Your task to perform on an android device: Show the shopping cart on amazon. Add macbook to the cart on amazon, then select checkout. Image 0: 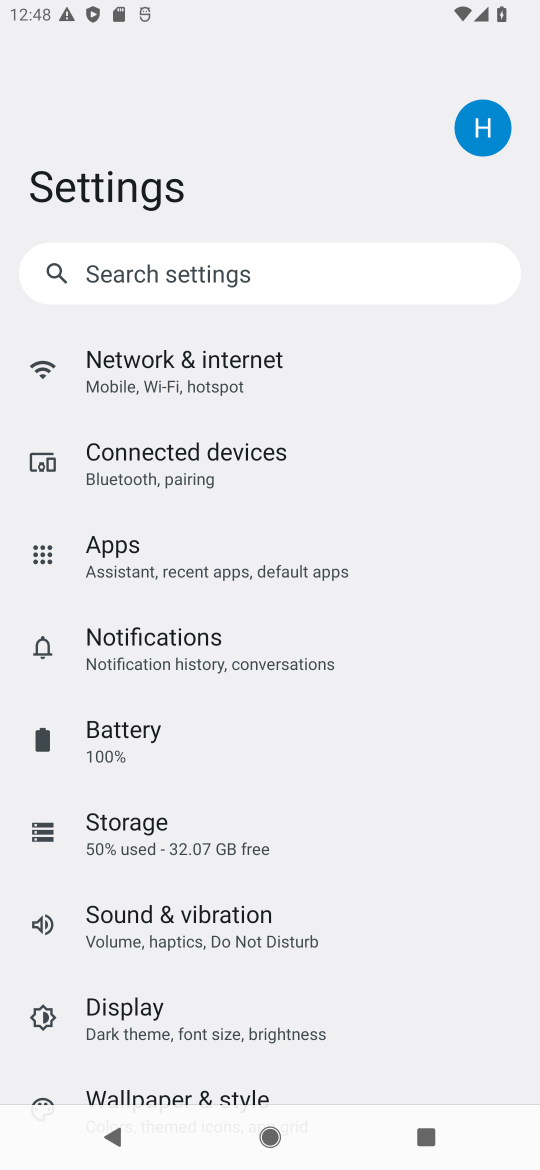
Step 0: press home button
Your task to perform on an android device: Show the shopping cart on amazon. Add macbook to the cart on amazon, then select checkout. Image 1: 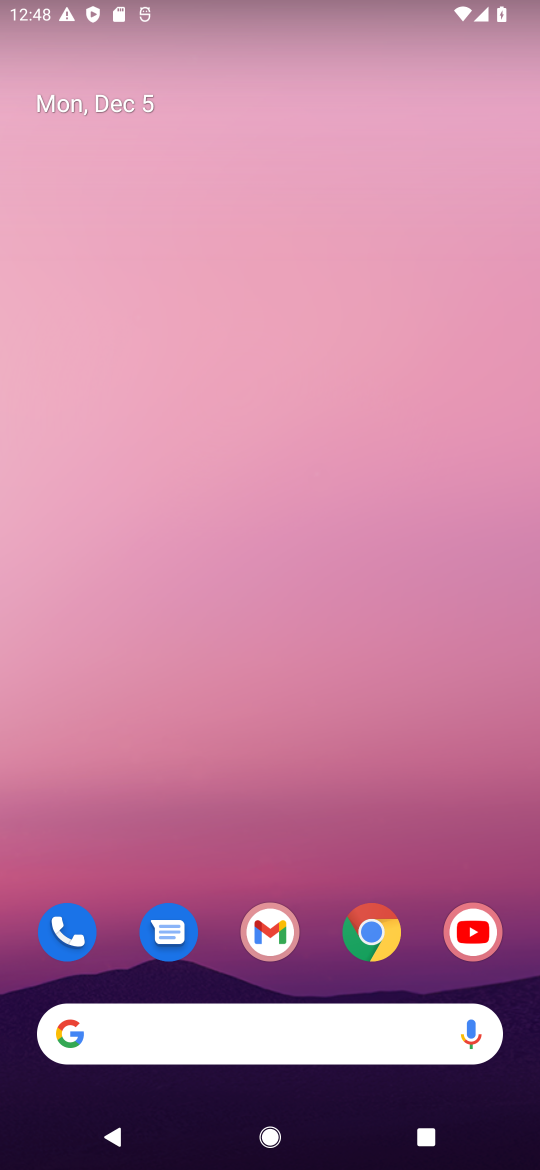
Step 1: click (368, 929)
Your task to perform on an android device: Show the shopping cart on amazon. Add macbook to the cart on amazon, then select checkout. Image 2: 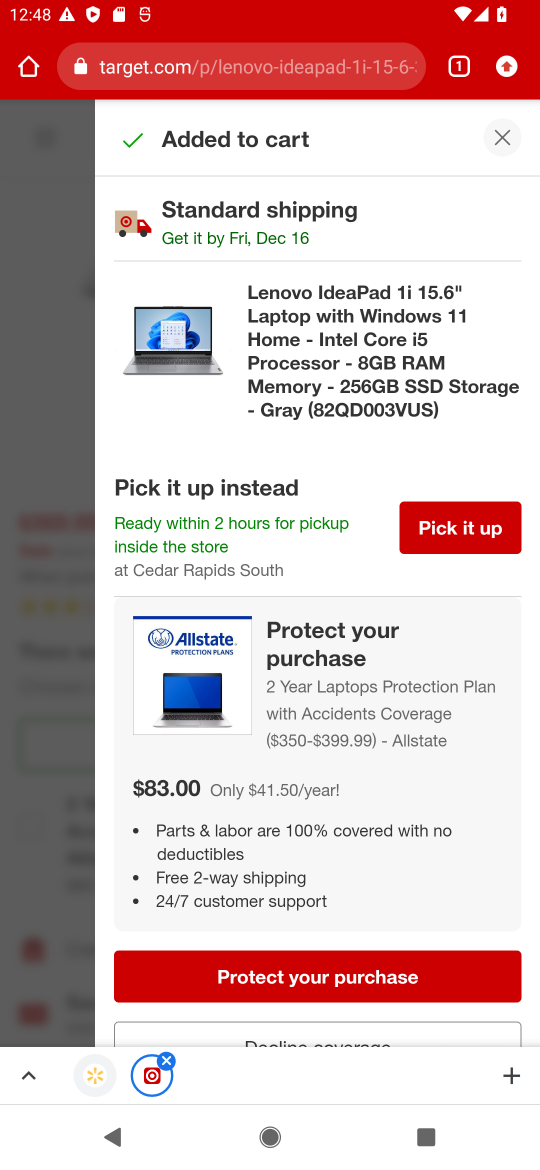
Step 2: click (230, 63)
Your task to perform on an android device: Show the shopping cart on amazon. Add macbook to the cart on amazon, then select checkout. Image 3: 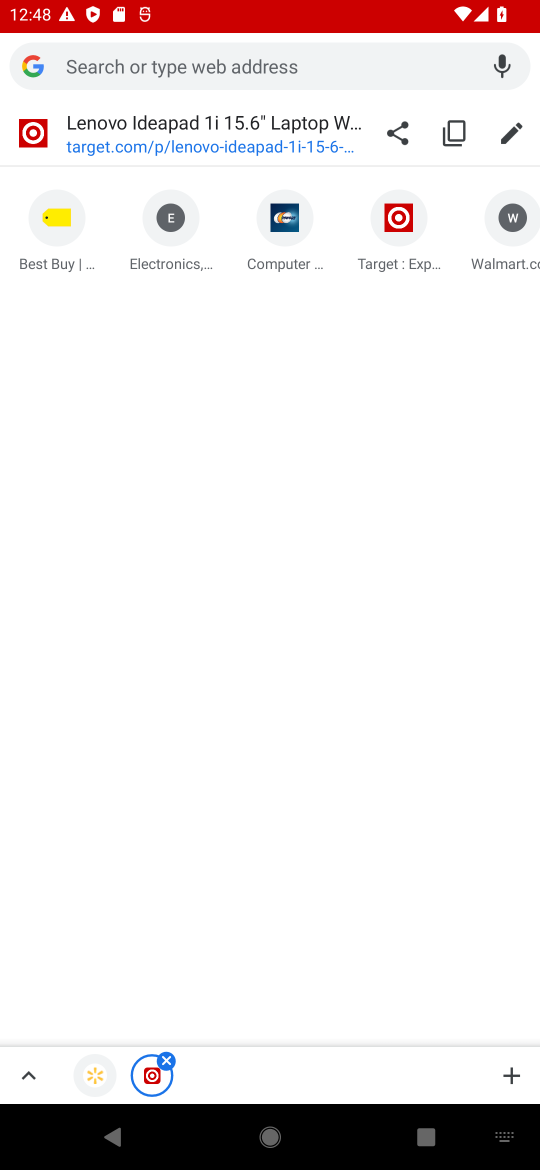
Step 3: type "amazon"
Your task to perform on an android device: Show the shopping cart on amazon. Add macbook to the cart on amazon, then select checkout. Image 4: 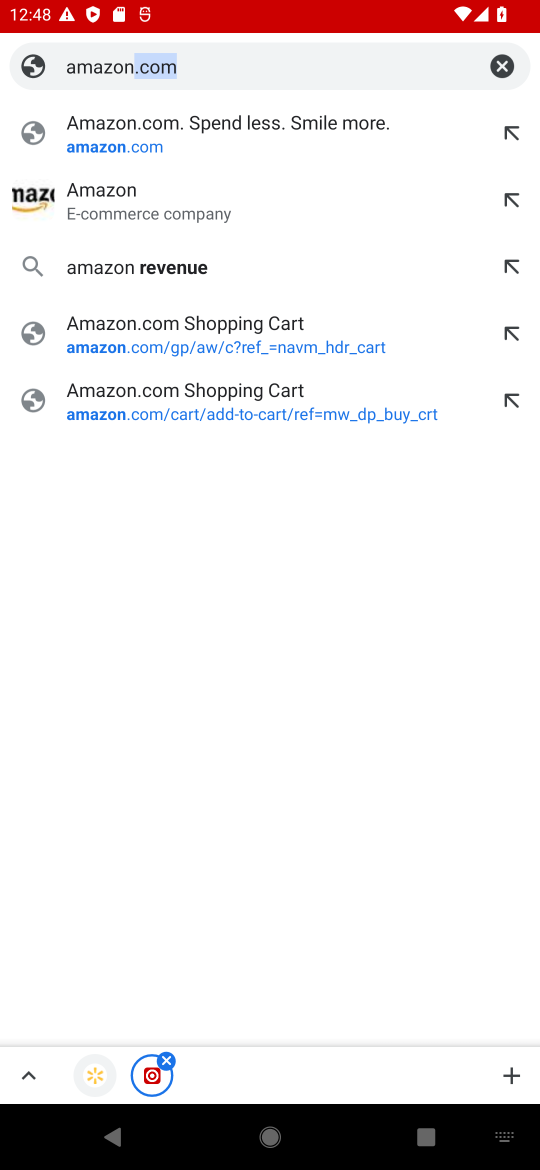
Step 4: click (110, 144)
Your task to perform on an android device: Show the shopping cart on amazon. Add macbook to the cart on amazon, then select checkout. Image 5: 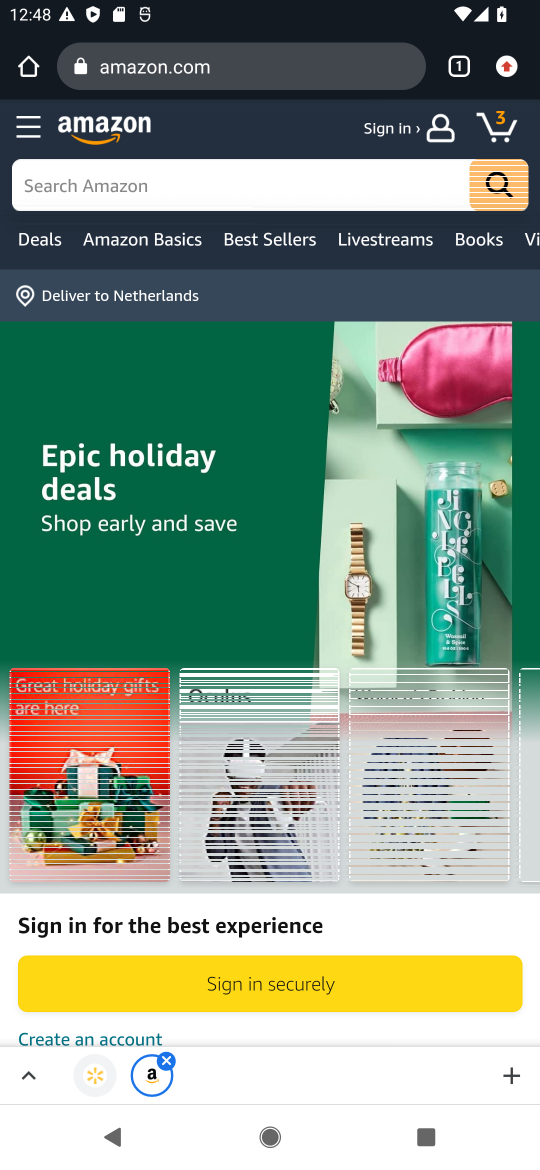
Step 5: click (238, 183)
Your task to perform on an android device: Show the shopping cart on amazon. Add macbook to the cart on amazon, then select checkout. Image 6: 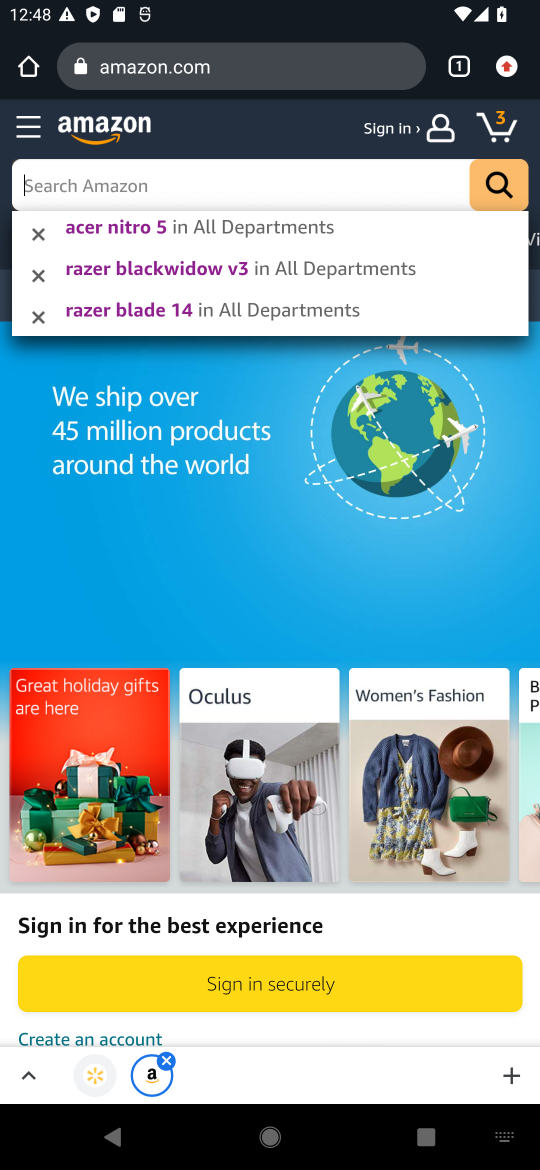
Step 6: type "macbook"
Your task to perform on an android device: Show the shopping cart on amazon. Add macbook to the cart on amazon, then select checkout. Image 7: 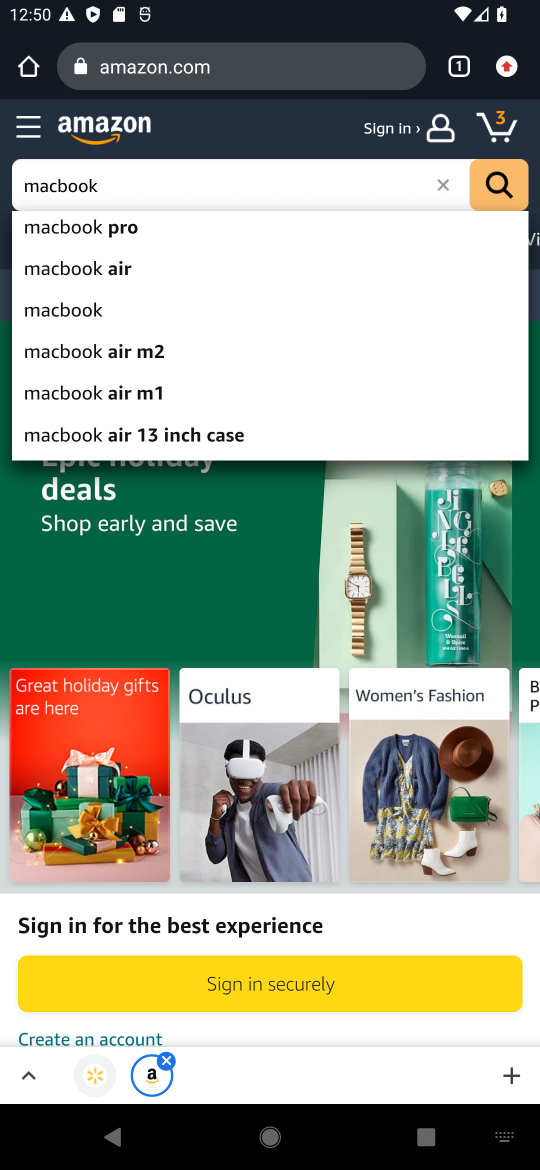
Step 7: click (93, 232)
Your task to perform on an android device: Show the shopping cart on amazon. Add macbook to the cart on amazon, then select checkout. Image 8: 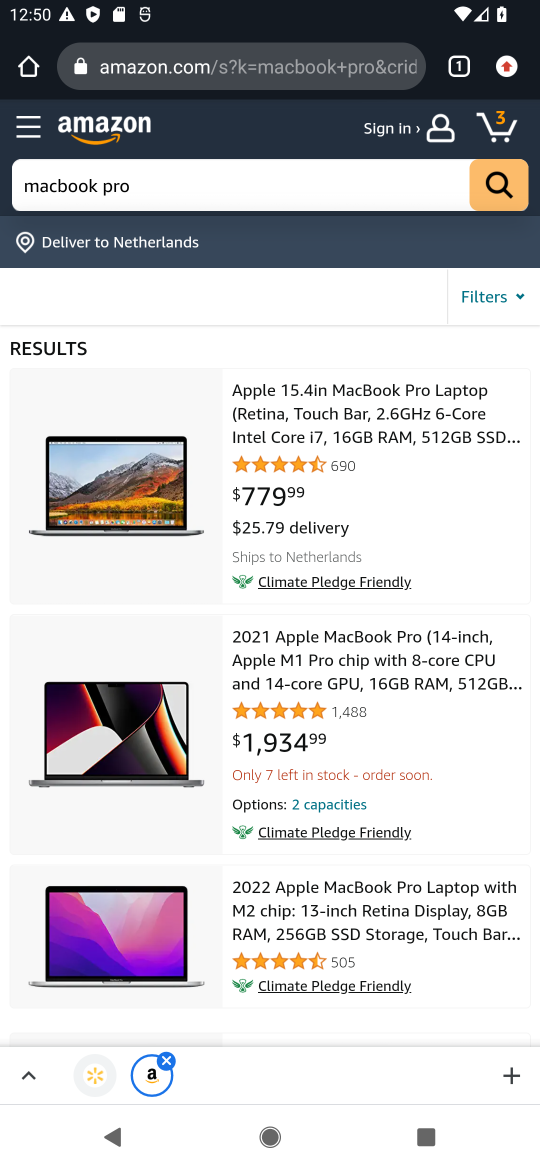
Step 8: click (101, 444)
Your task to perform on an android device: Show the shopping cart on amazon. Add macbook to the cart on amazon, then select checkout. Image 9: 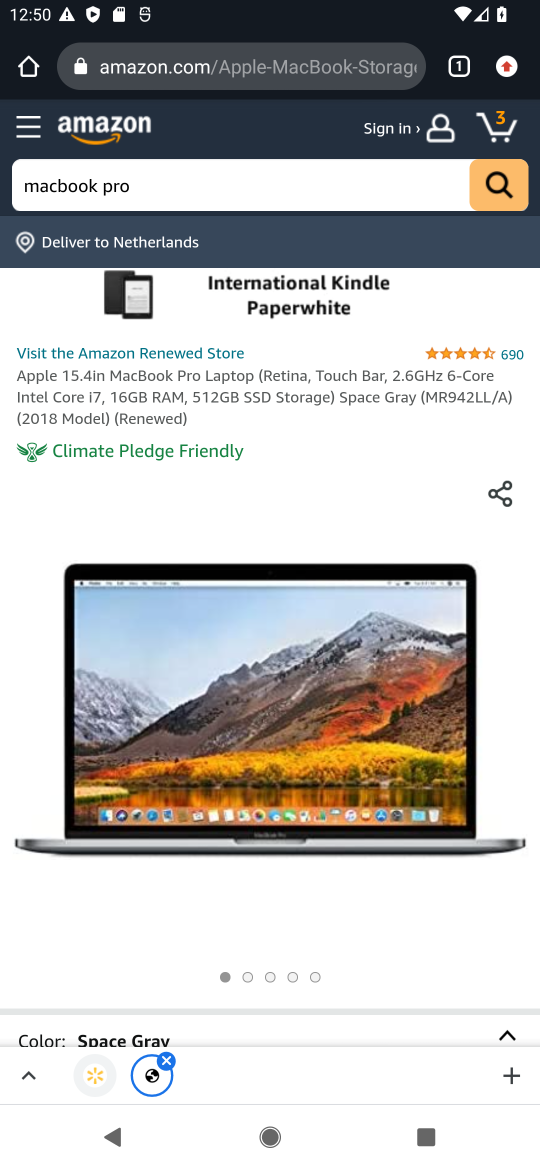
Step 9: drag from (366, 964) to (314, 323)
Your task to perform on an android device: Show the shopping cart on amazon. Add macbook to the cart on amazon, then select checkout. Image 10: 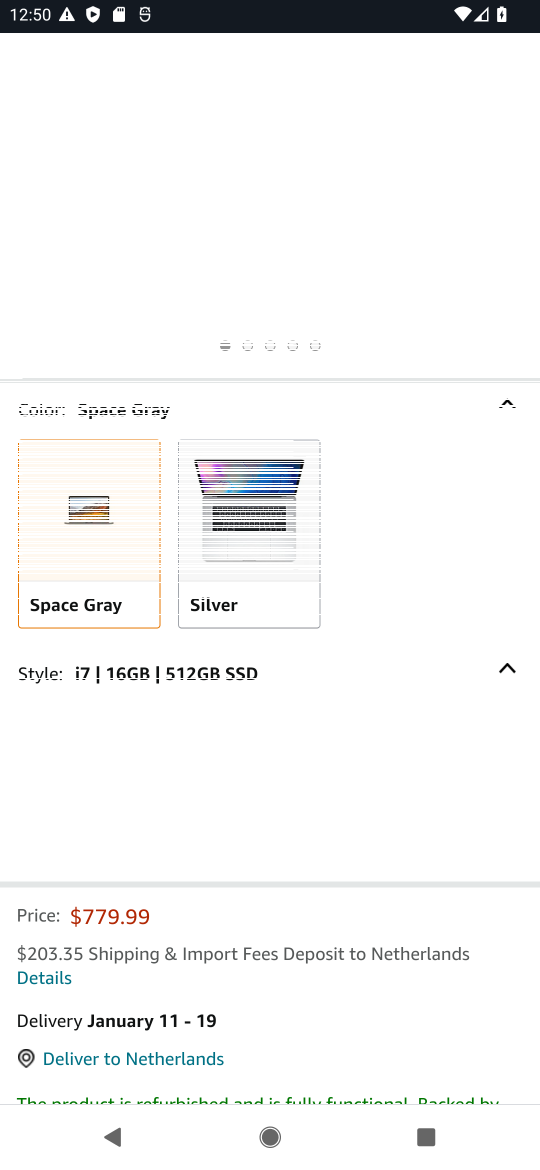
Step 10: drag from (387, 1028) to (362, 286)
Your task to perform on an android device: Show the shopping cart on amazon. Add macbook to the cart on amazon, then select checkout. Image 11: 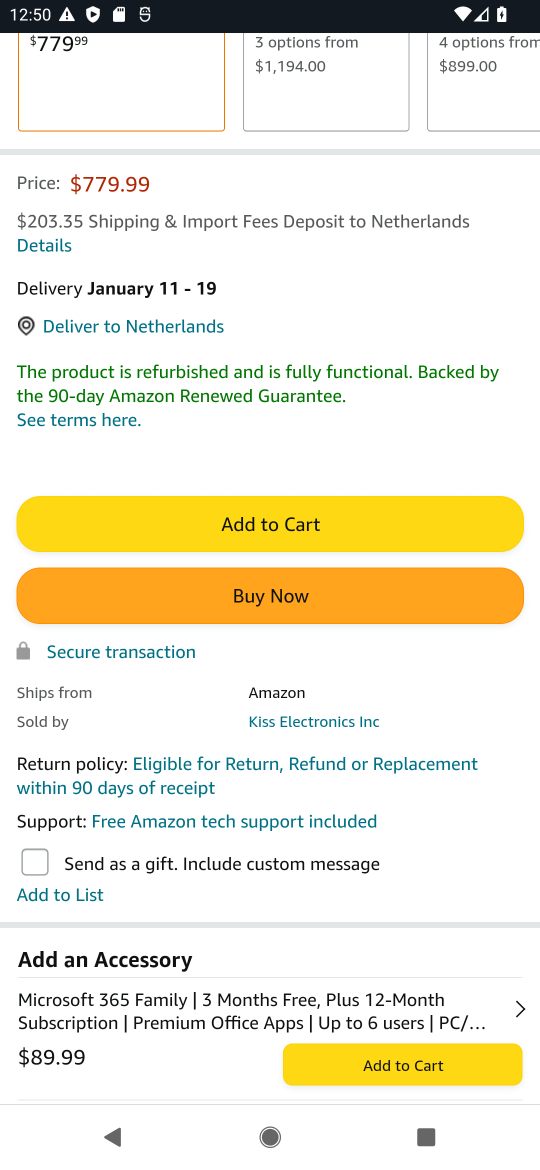
Step 11: click (299, 527)
Your task to perform on an android device: Show the shopping cart on amazon. Add macbook to the cart on amazon, then select checkout. Image 12: 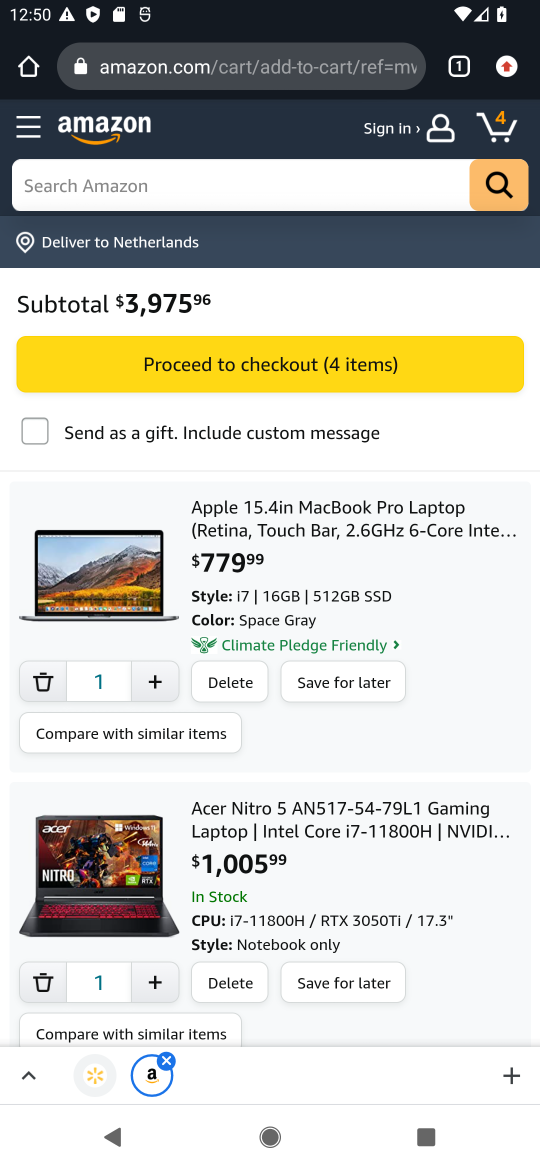
Step 12: click (244, 358)
Your task to perform on an android device: Show the shopping cart on amazon. Add macbook to the cart on amazon, then select checkout. Image 13: 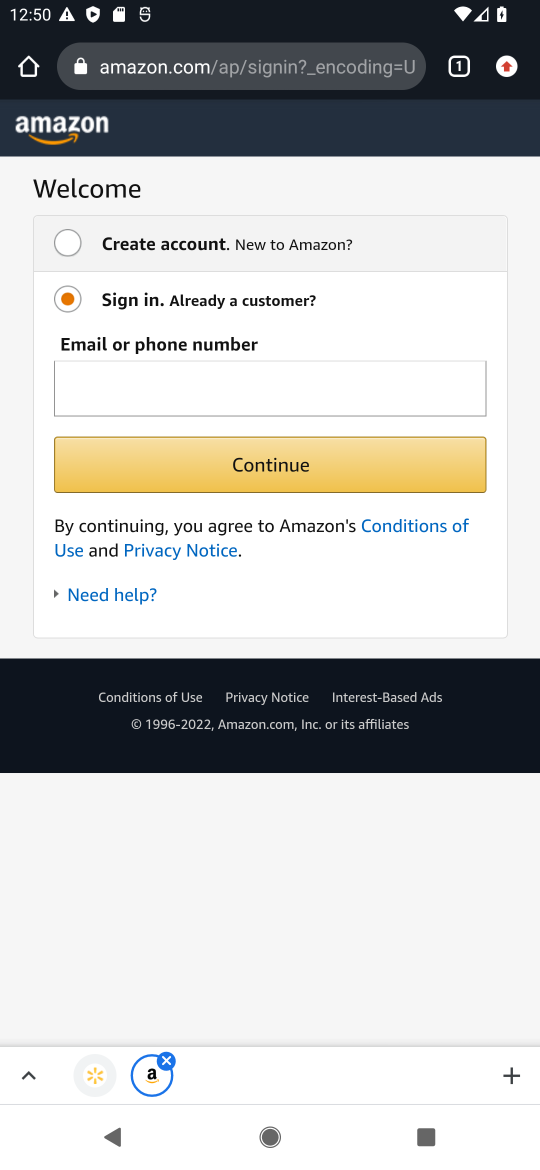
Step 13: task complete